Your task to perform on an android device: Open calendar and show me the first week of next month Image 0: 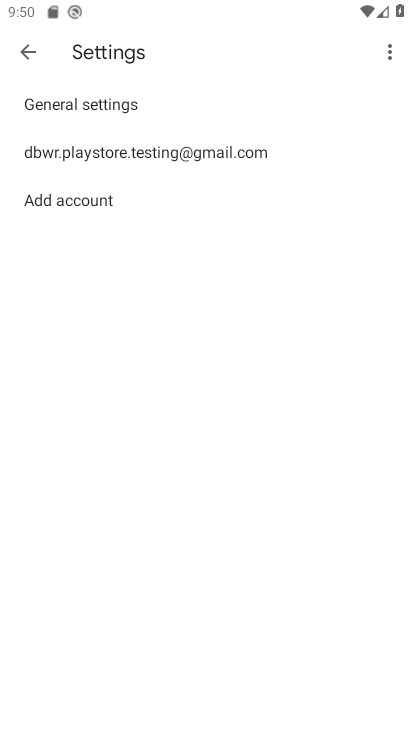
Step 0: press back button
Your task to perform on an android device: Open calendar and show me the first week of next month Image 1: 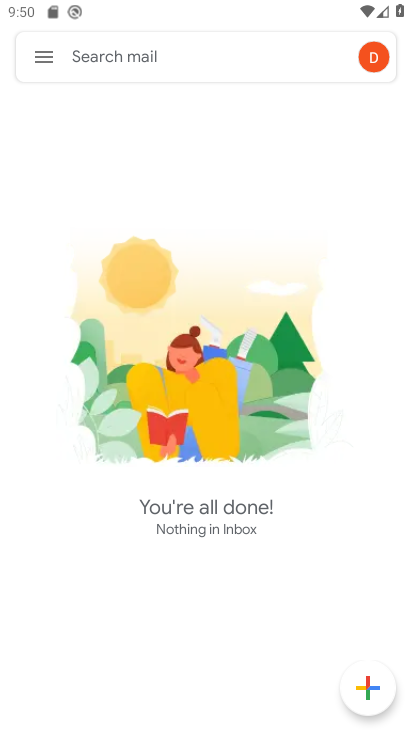
Step 1: press back button
Your task to perform on an android device: Open calendar and show me the first week of next month Image 2: 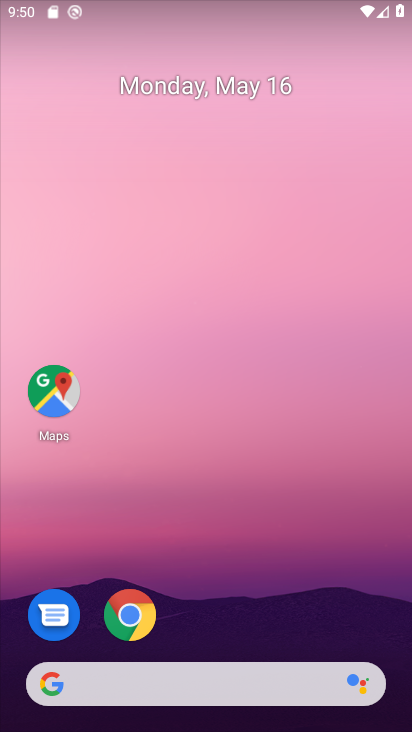
Step 2: drag from (265, 503) to (215, 11)
Your task to perform on an android device: Open calendar and show me the first week of next month Image 3: 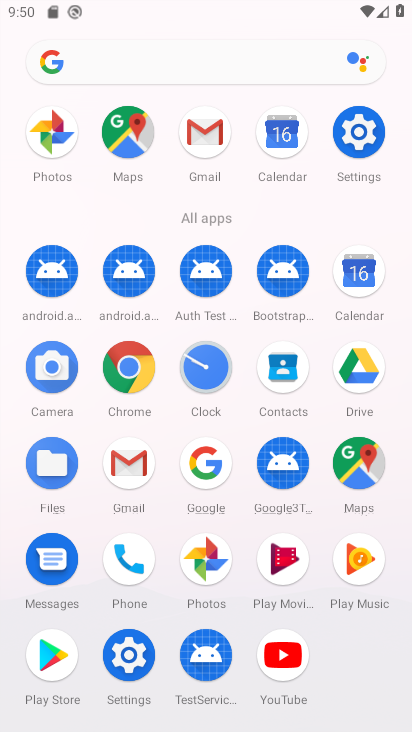
Step 3: click (356, 270)
Your task to perform on an android device: Open calendar and show me the first week of next month Image 4: 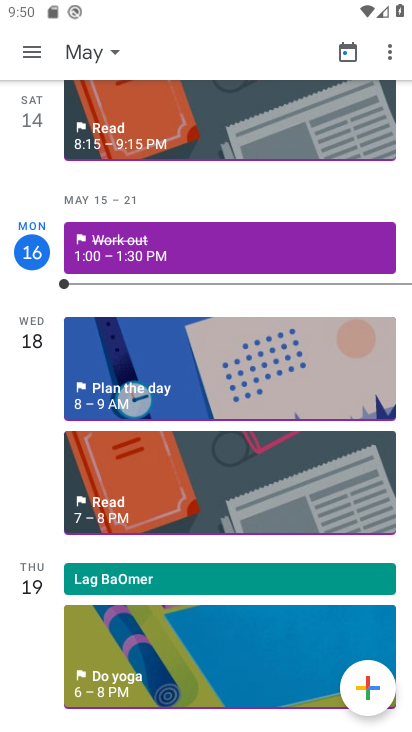
Step 4: click (36, 44)
Your task to perform on an android device: Open calendar and show me the first week of next month Image 5: 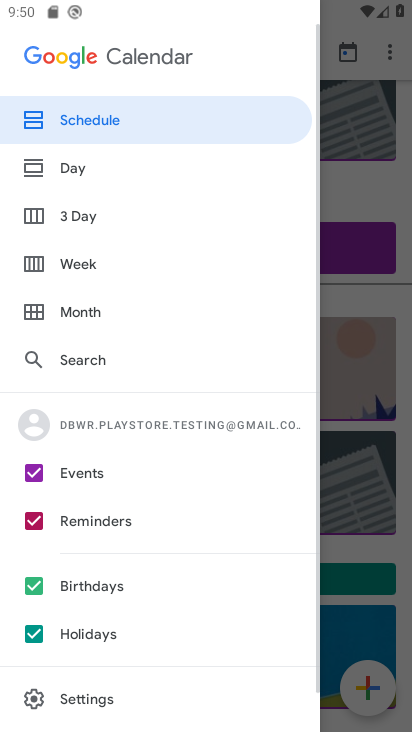
Step 5: drag from (219, 197) to (200, 582)
Your task to perform on an android device: Open calendar and show me the first week of next month Image 6: 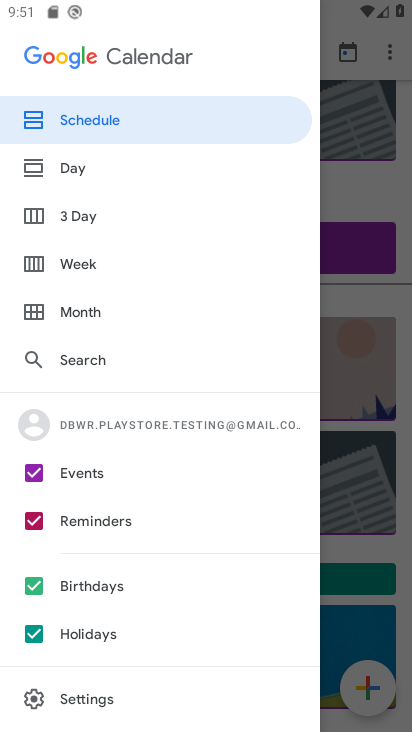
Step 6: drag from (199, 577) to (190, 84)
Your task to perform on an android device: Open calendar and show me the first week of next month Image 7: 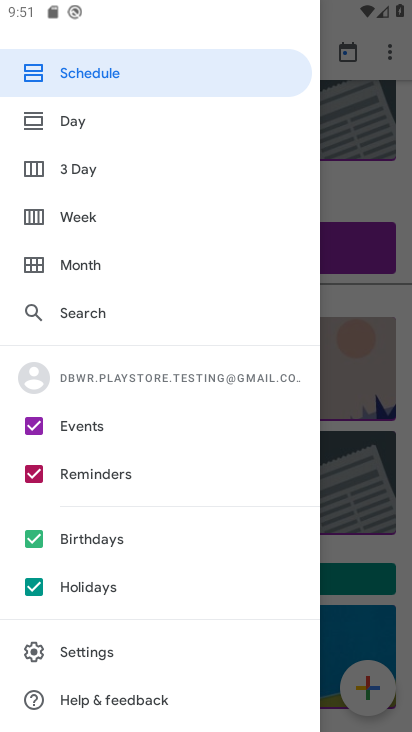
Step 7: click (356, 519)
Your task to perform on an android device: Open calendar and show me the first week of next month Image 8: 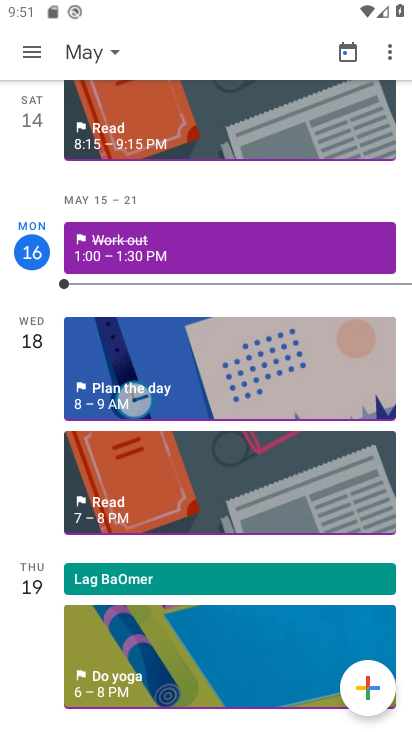
Step 8: click (92, 36)
Your task to perform on an android device: Open calendar and show me the first week of next month Image 9: 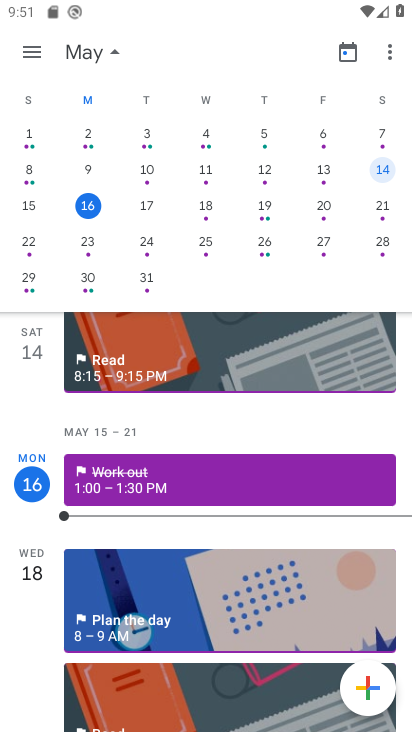
Step 9: drag from (343, 209) to (15, 181)
Your task to perform on an android device: Open calendar and show me the first week of next month Image 10: 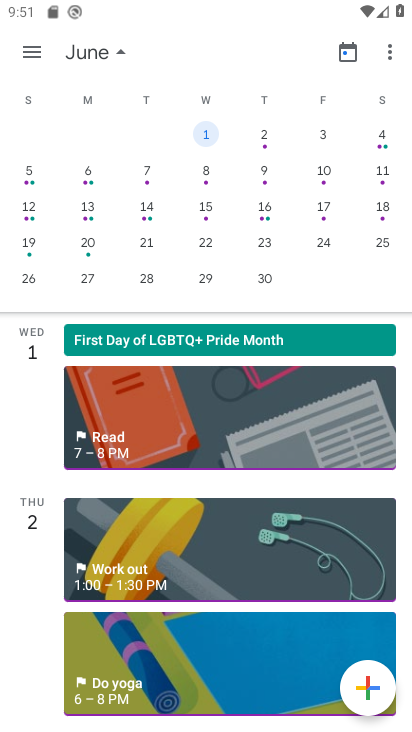
Step 10: click (207, 135)
Your task to perform on an android device: Open calendar and show me the first week of next month Image 11: 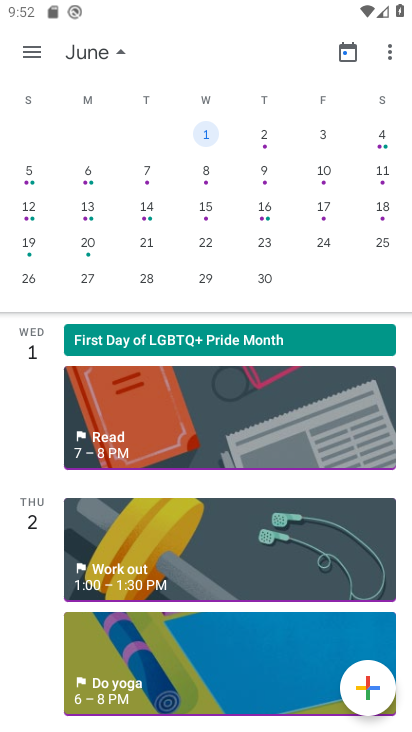
Step 11: click (28, 41)
Your task to perform on an android device: Open calendar and show me the first week of next month Image 12: 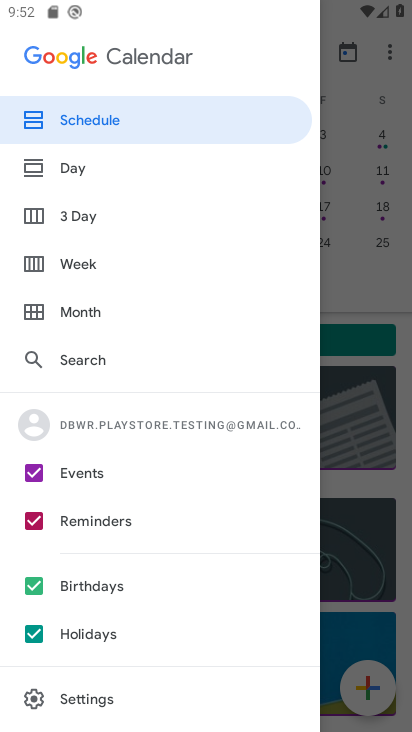
Step 12: click (99, 261)
Your task to perform on an android device: Open calendar and show me the first week of next month Image 13: 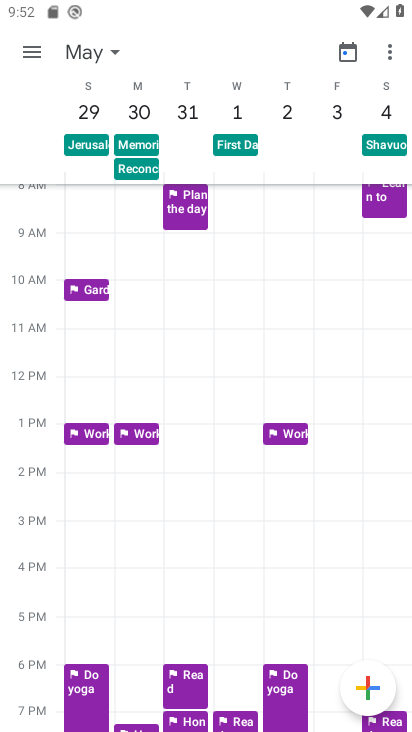
Step 13: task complete